Your task to perform on an android device: Open accessibility settings Image 0: 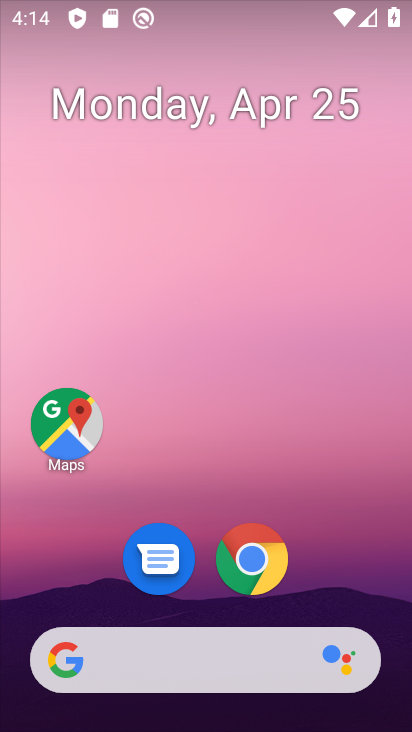
Step 0: drag from (292, 491) to (258, 37)
Your task to perform on an android device: Open accessibility settings Image 1: 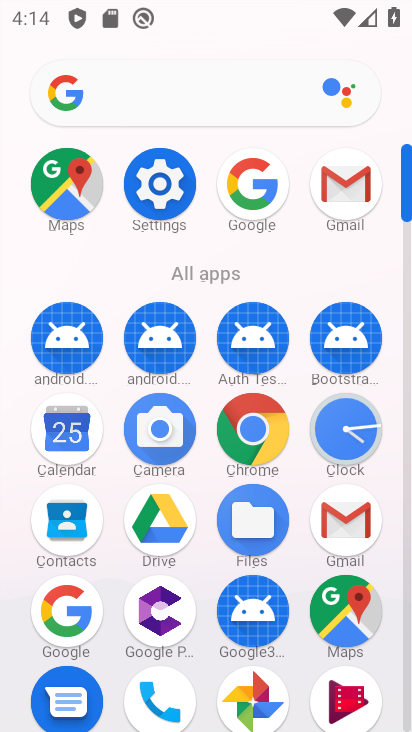
Step 1: click (160, 182)
Your task to perform on an android device: Open accessibility settings Image 2: 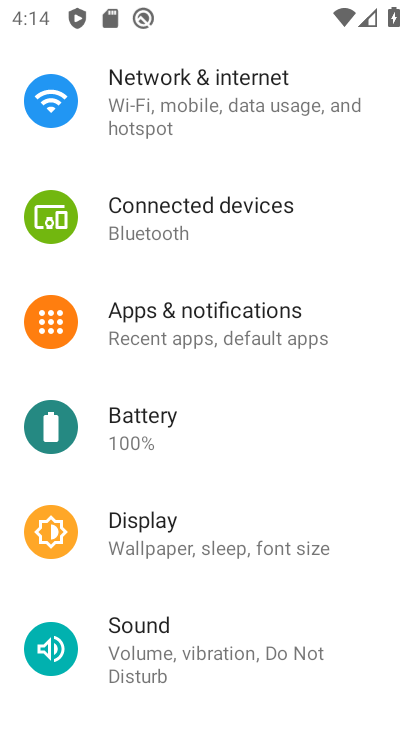
Step 2: drag from (223, 501) to (248, 420)
Your task to perform on an android device: Open accessibility settings Image 3: 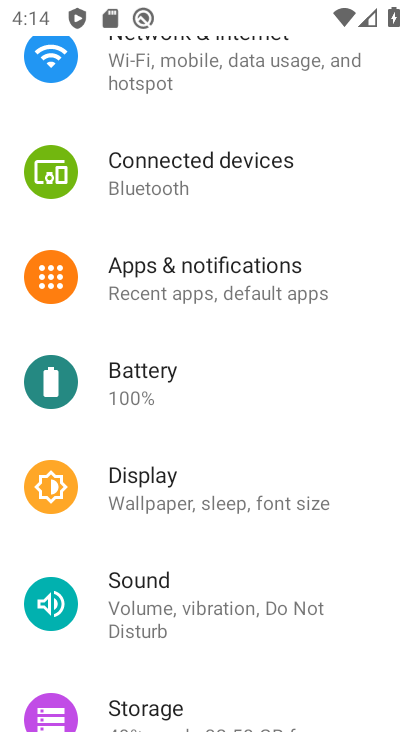
Step 3: drag from (169, 541) to (224, 462)
Your task to perform on an android device: Open accessibility settings Image 4: 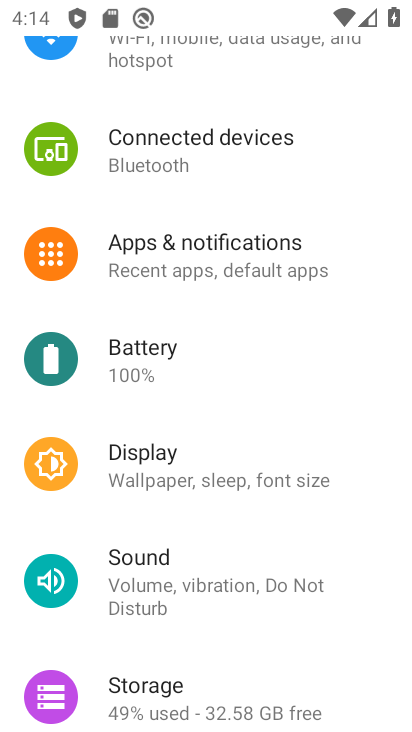
Step 4: drag from (140, 639) to (237, 526)
Your task to perform on an android device: Open accessibility settings Image 5: 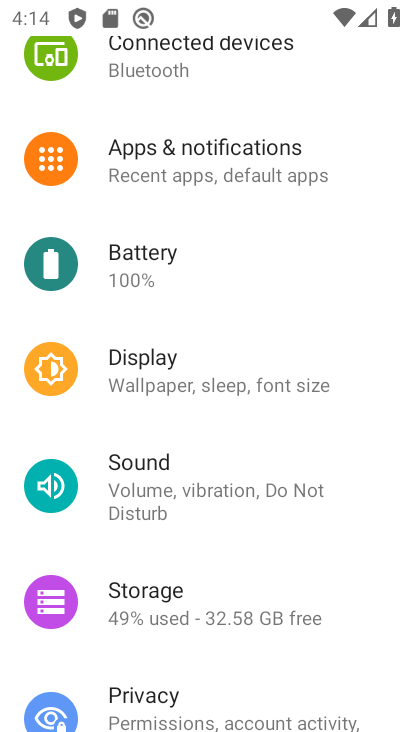
Step 5: drag from (143, 648) to (243, 523)
Your task to perform on an android device: Open accessibility settings Image 6: 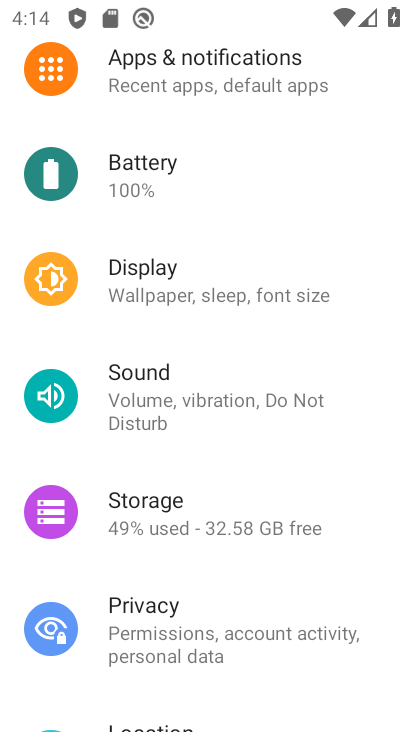
Step 6: drag from (154, 574) to (261, 462)
Your task to perform on an android device: Open accessibility settings Image 7: 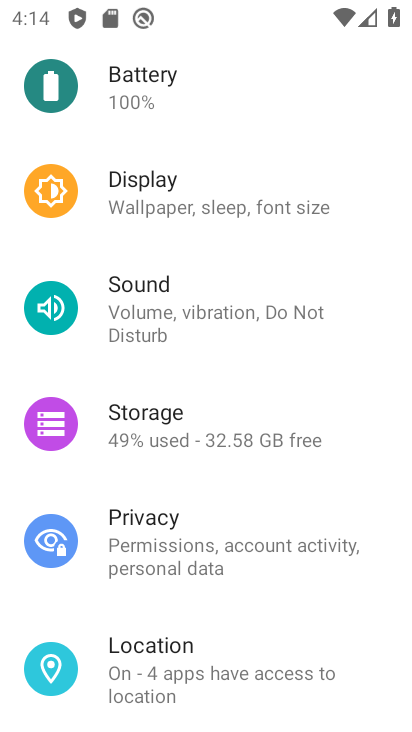
Step 7: drag from (119, 608) to (235, 482)
Your task to perform on an android device: Open accessibility settings Image 8: 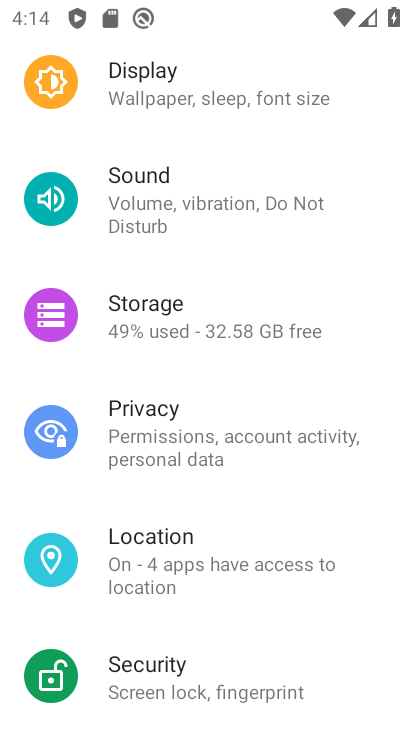
Step 8: drag from (130, 621) to (253, 484)
Your task to perform on an android device: Open accessibility settings Image 9: 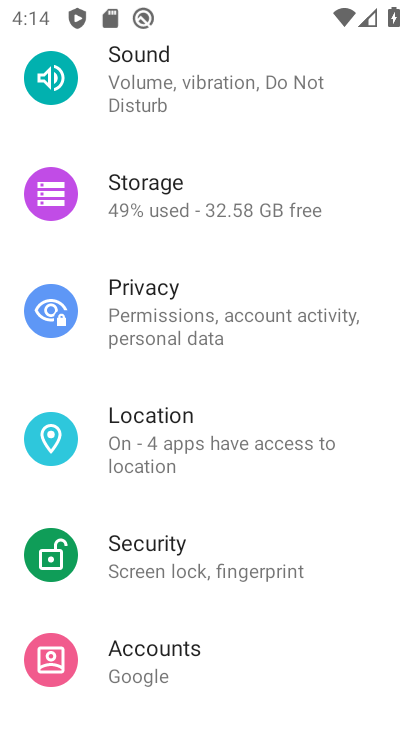
Step 9: drag from (126, 599) to (244, 475)
Your task to perform on an android device: Open accessibility settings Image 10: 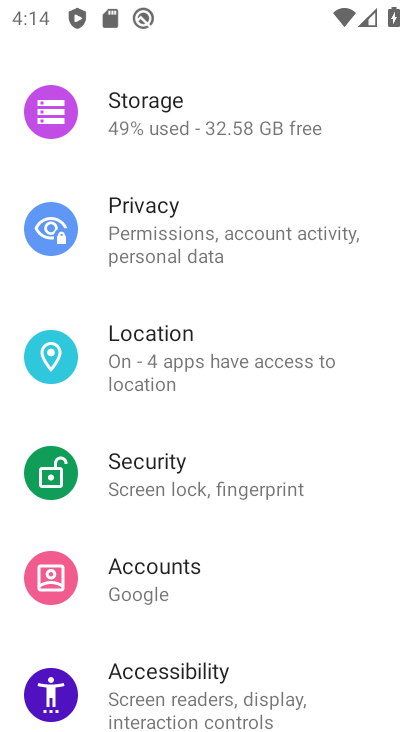
Step 10: drag from (150, 609) to (285, 470)
Your task to perform on an android device: Open accessibility settings Image 11: 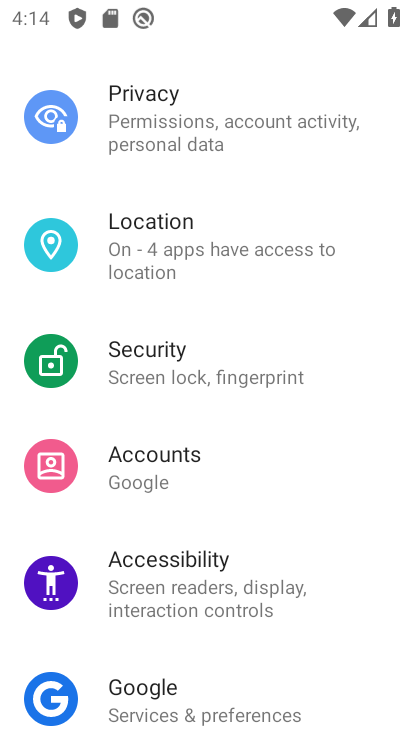
Step 11: click (131, 569)
Your task to perform on an android device: Open accessibility settings Image 12: 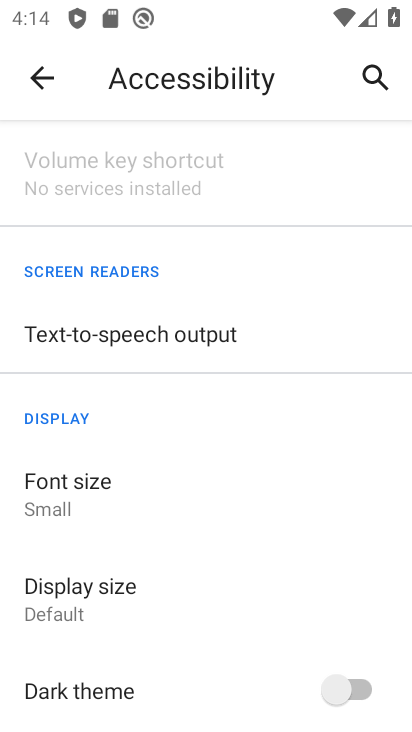
Step 12: task complete